Your task to perform on an android device: open a bookmark in the chrome app Image 0: 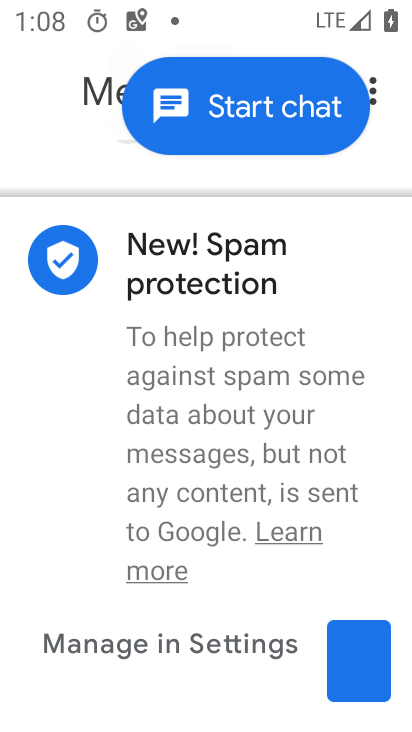
Step 0: press home button
Your task to perform on an android device: open a bookmark in the chrome app Image 1: 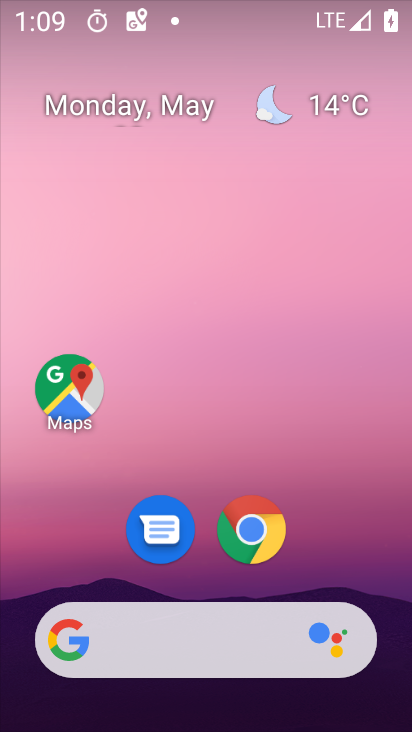
Step 1: drag from (389, 584) to (396, 153)
Your task to perform on an android device: open a bookmark in the chrome app Image 2: 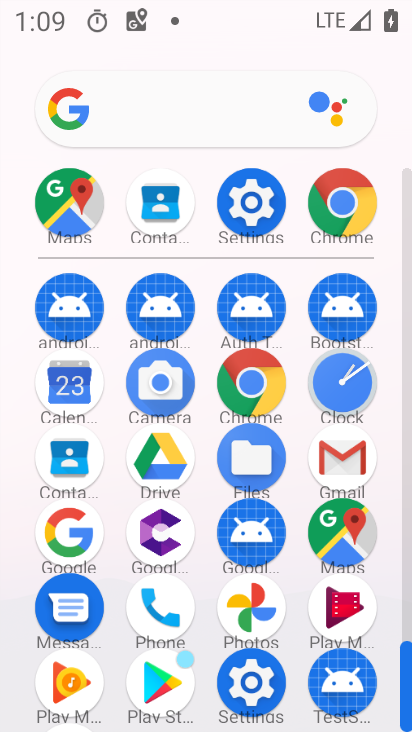
Step 2: click (268, 385)
Your task to perform on an android device: open a bookmark in the chrome app Image 3: 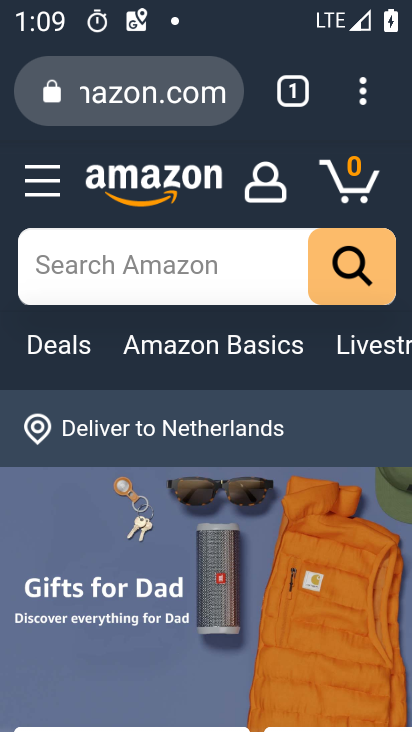
Step 3: click (359, 109)
Your task to perform on an android device: open a bookmark in the chrome app Image 4: 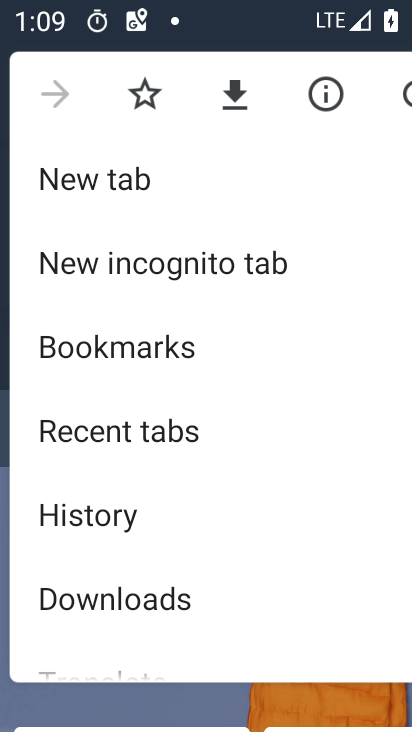
Step 4: click (232, 354)
Your task to perform on an android device: open a bookmark in the chrome app Image 5: 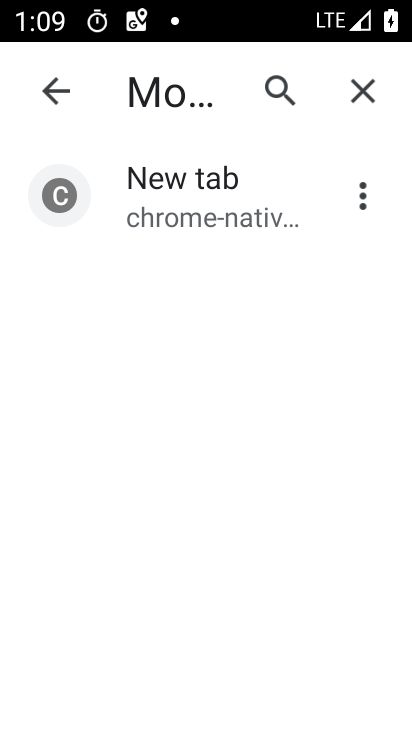
Step 5: click (212, 200)
Your task to perform on an android device: open a bookmark in the chrome app Image 6: 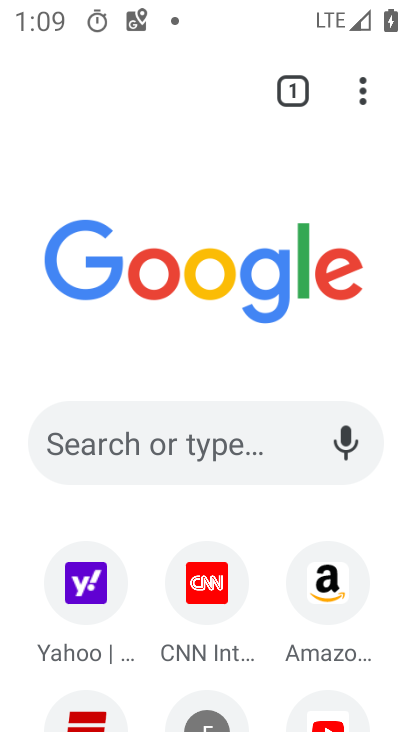
Step 6: task complete